Your task to perform on an android device: turn vacation reply on in the gmail app Image 0: 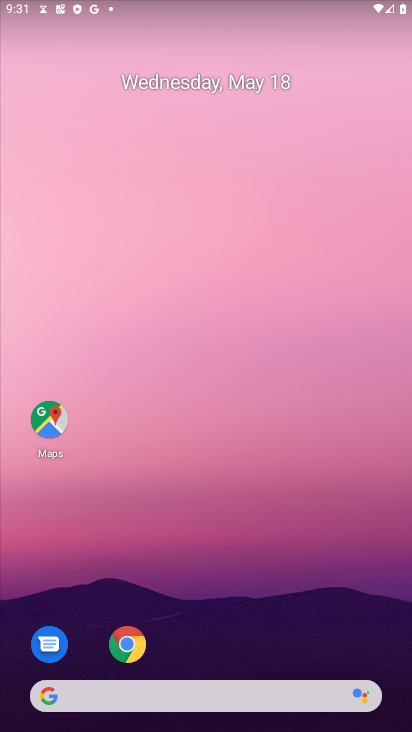
Step 0: drag from (231, 631) to (314, 96)
Your task to perform on an android device: turn vacation reply on in the gmail app Image 1: 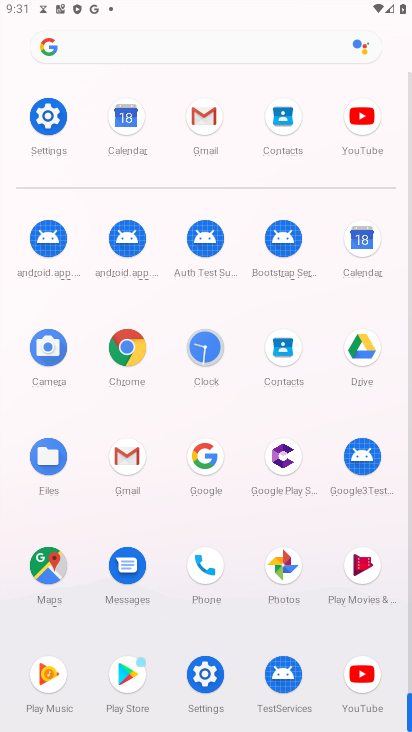
Step 1: click (202, 115)
Your task to perform on an android device: turn vacation reply on in the gmail app Image 2: 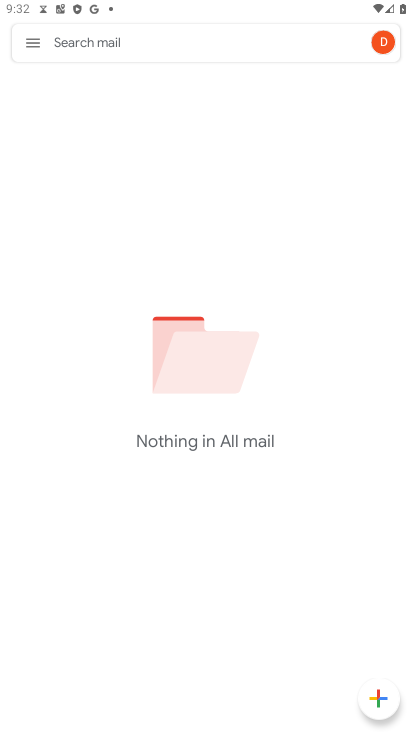
Step 2: click (34, 43)
Your task to perform on an android device: turn vacation reply on in the gmail app Image 3: 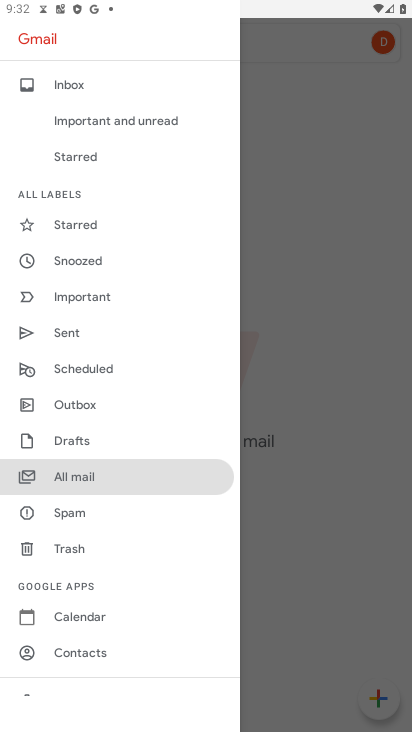
Step 3: drag from (87, 556) to (147, 432)
Your task to perform on an android device: turn vacation reply on in the gmail app Image 4: 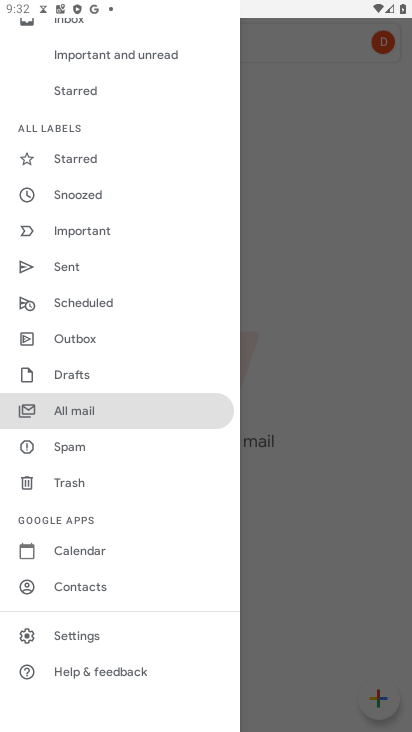
Step 4: click (65, 637)
Your task to perform on an android device: turn vacation reply on in the gmail app Image 5: 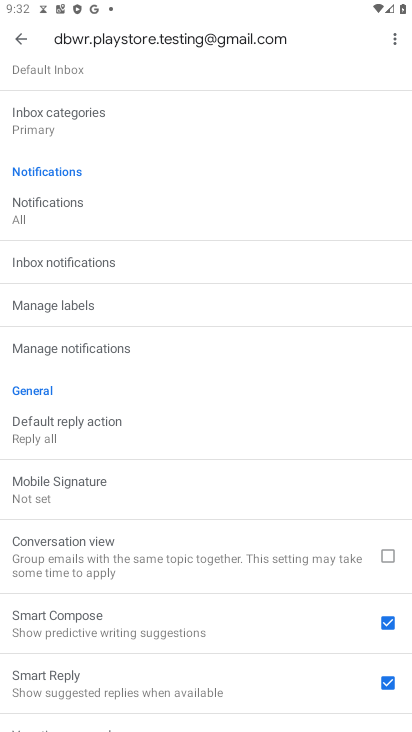
Step 5: drag from (123, 519) to (182, 388)
Your task to perform on an android device: turn vacation reply on in the gmail app Image 6: 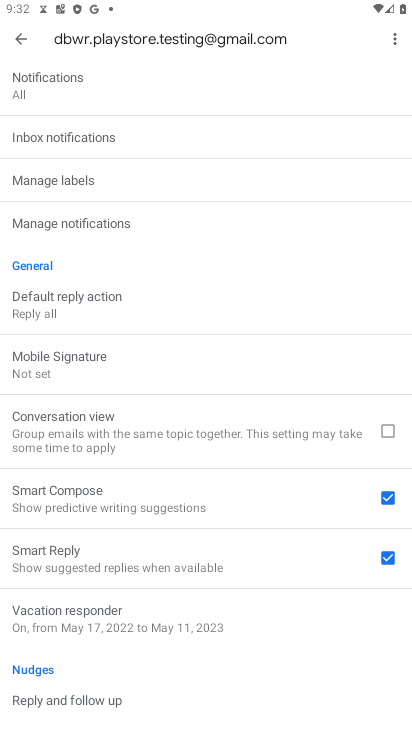
Step 6: click (166, 626)
Your task to perform on an android device: turn vacation reply on in the gmail app Image 7: 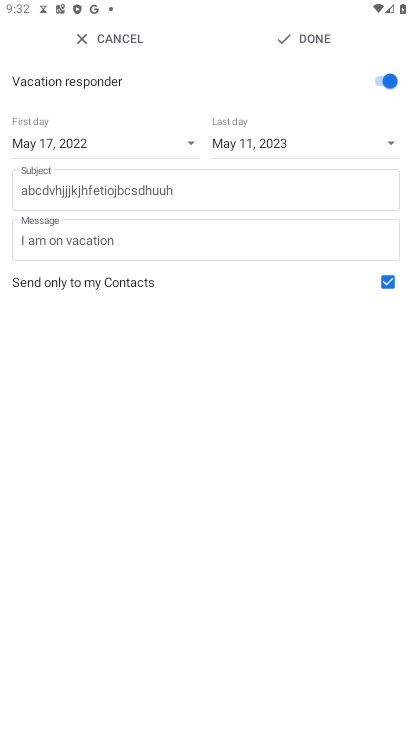
Step 7: task complete